Your task to perform on an android device: Open the phone app and click the voicemail tab. Image 0: 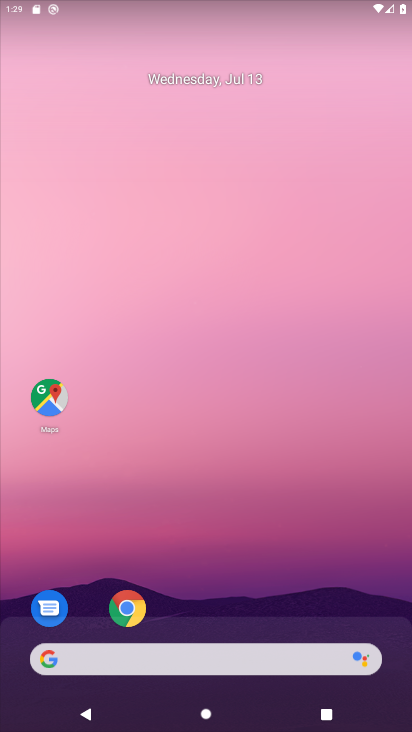
Step 0: drag from (156, 656) to (227, 94)
Your task to perform on an android device: Open the phone app and click the voicemail tab. Image 1: 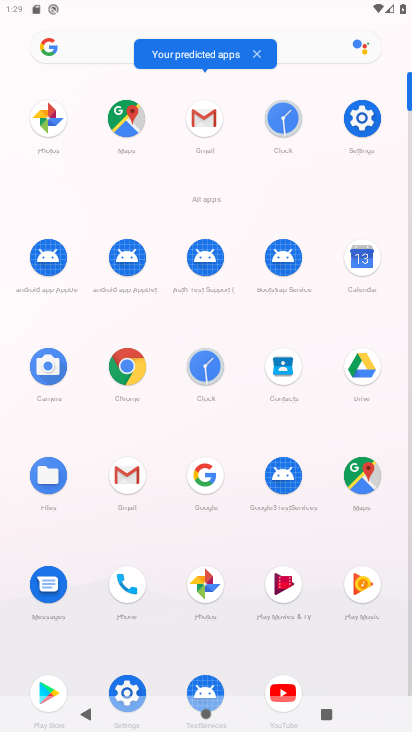
Step 1: click (131, 588)
Your task to perform on an android device: Open the phone app and click the voicemail tab. Image 2: 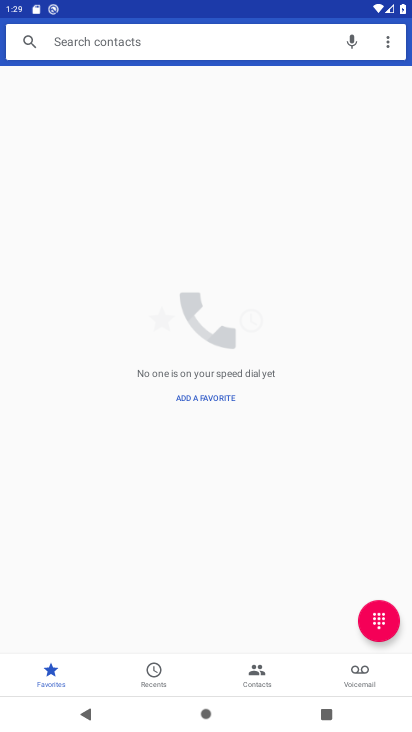
Step 2: click (373, 675)
Your task to perform on an android device: Open the phone app and click the voicemail tab. Image 3: 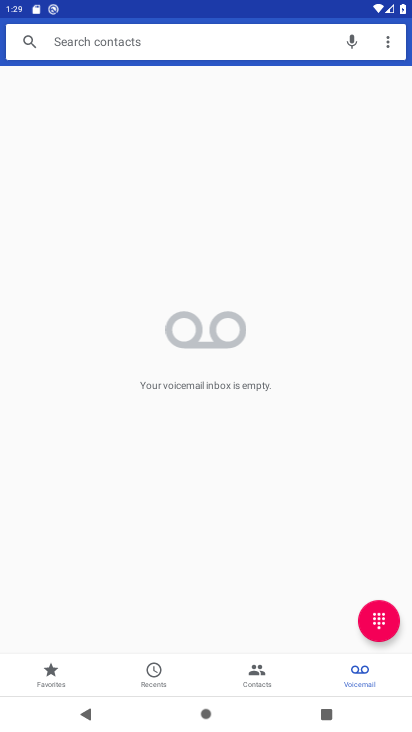
Step 3: task complete